Your task to perform on an android device: check storage Image 0: 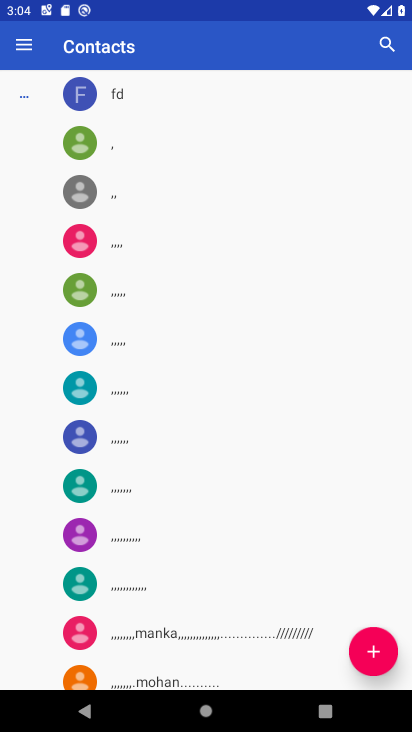
Step 0: press home button
Your task to perform on an android device: check storage Image 1: 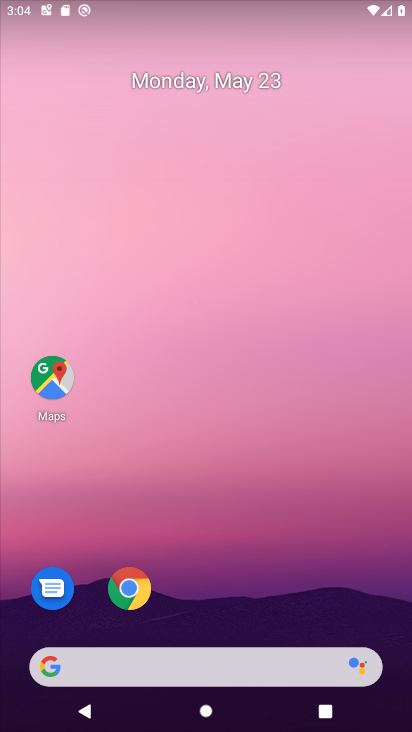
Step 1: drag from (198, 624) to (273, 69)
Your task to perform on an android device: check storage Image 2: 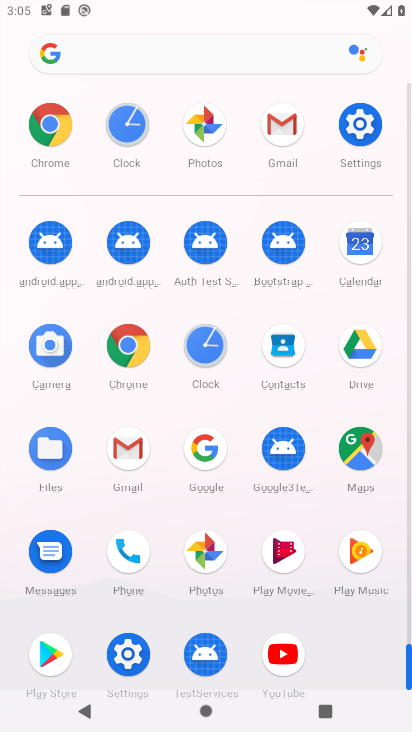
Step 2: click (122, 644)
Your task to perform on an android device: check storage Image 3: 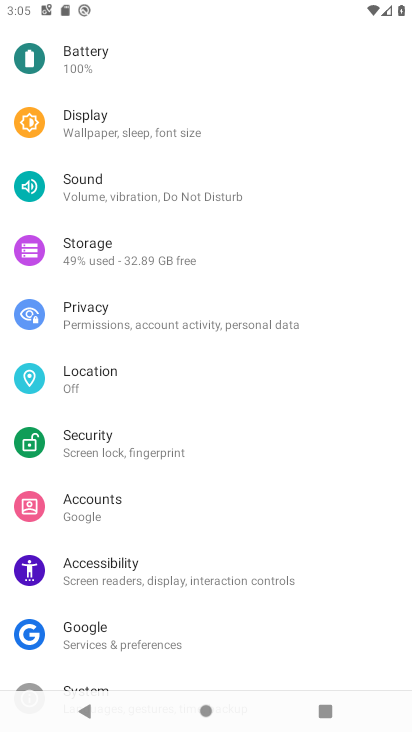
Step 3: drag from (197, 215) to (269, 729)
Your task to perform on an android device: check storage Image 4: 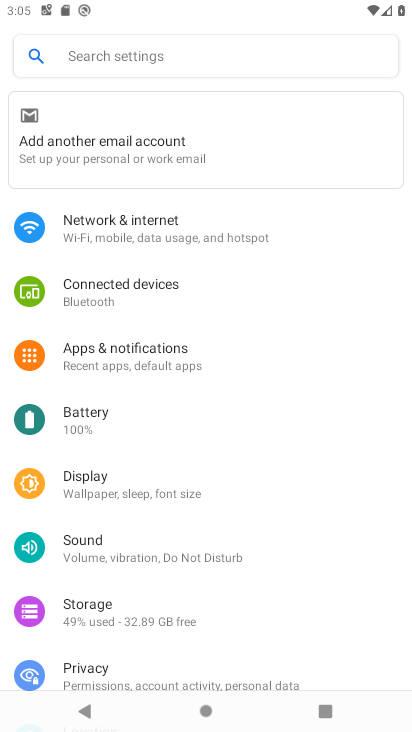
Step 4: click (101, 611)
Your task to perform on an android device: check storage Image 5: 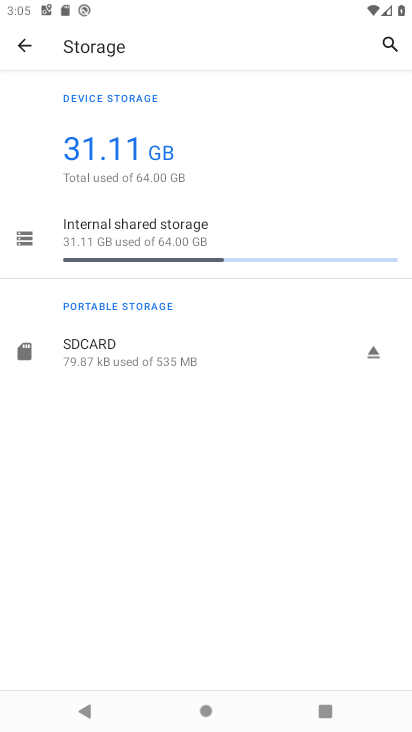
Step 5: task complete